Your task to perform on an android device: What's on my calendar tomorrow? Image 0: 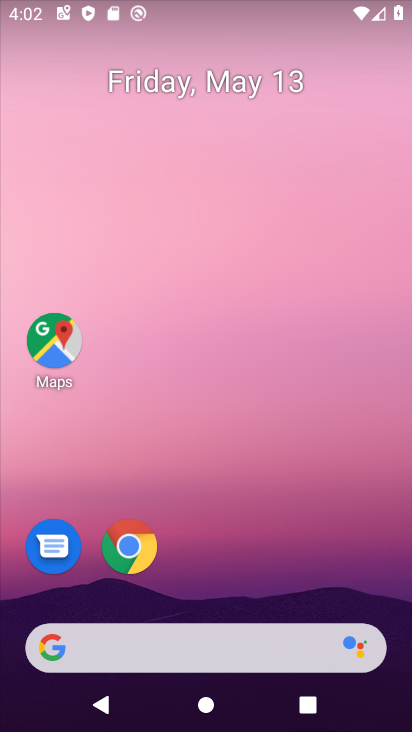
Step 0: drag from (247, 597) to (240, 5)
Your task to perform on an android device: What's on my calendar tomorrow? Image 1: 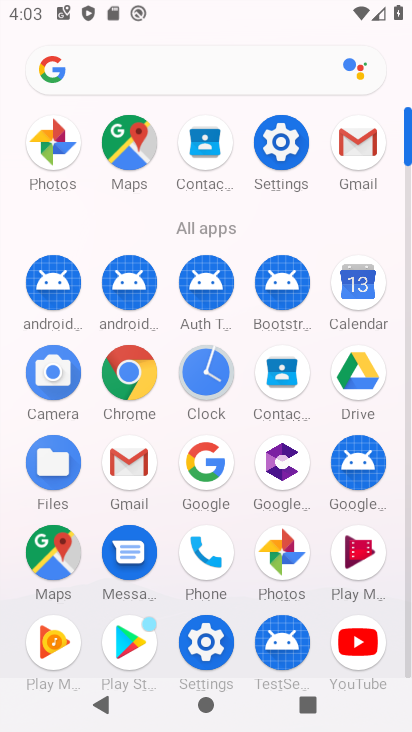
Step 1: click (363, 296)
Your task to perform on an android device: What's on my calendar tomorrow? Image 2: 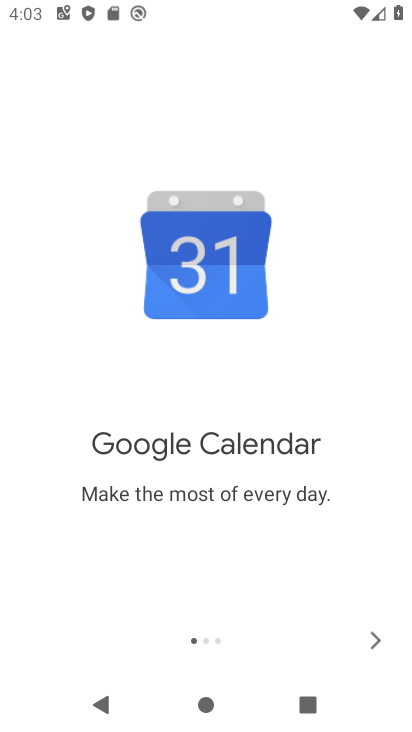
Step 2: click (370, 647)
Your task to perform on an android device: What's on my calendar tomorrow? Image 3: 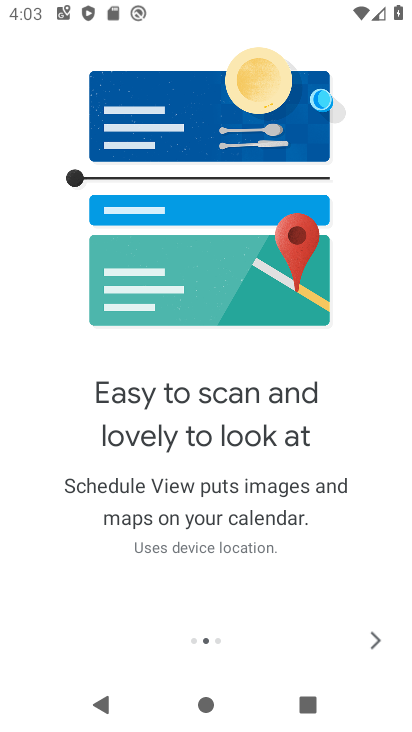
Step 3: click (364, 650)
Your task to perform on an android device: What's on my calendar tomorrow? Image 4: 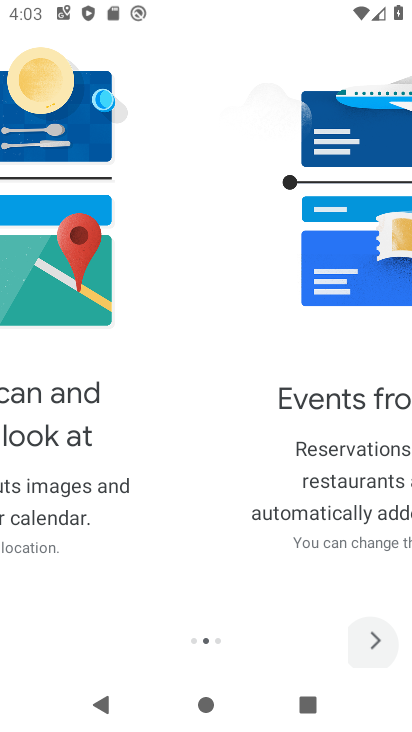
Step 4: click (371, 647)
Your task to perform on an android device: What's on my calendar tomorrow? Image 5: 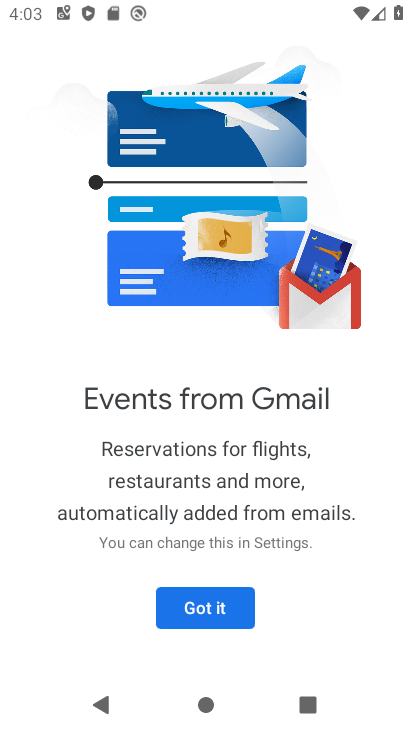
Step 5: click (220, 617)
Your task to perform on an android device: What's on my calendar tomorrow? Image 6: 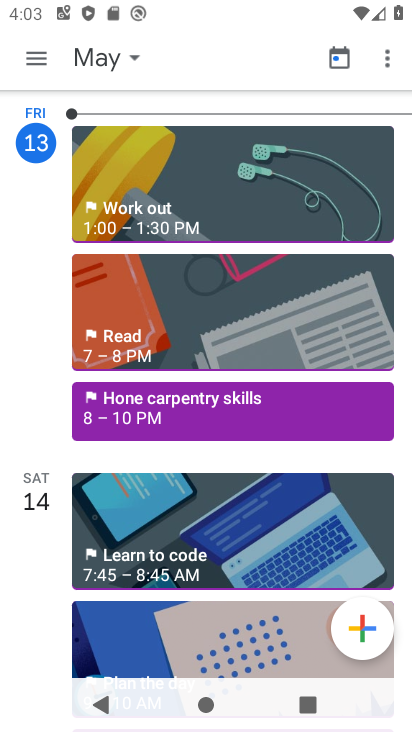
Step 6: click (33, 58)
Your task to perform on an android device: What's on my calendar tomorrow? Image 7: 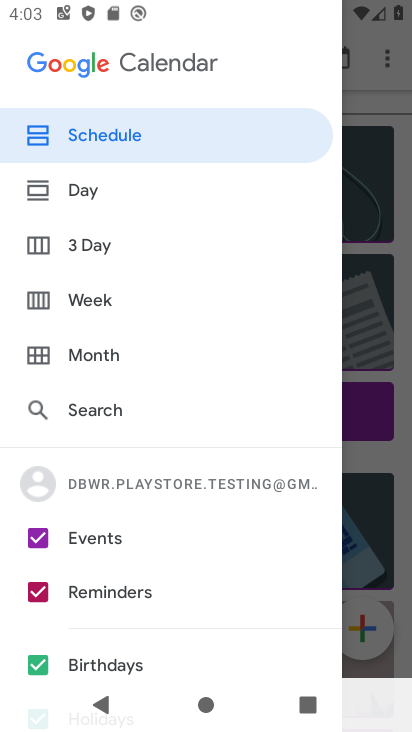
Step 7: click (31, 45)
Your task to perform on an android device: What's on my calendar tomorrow? Image 8: 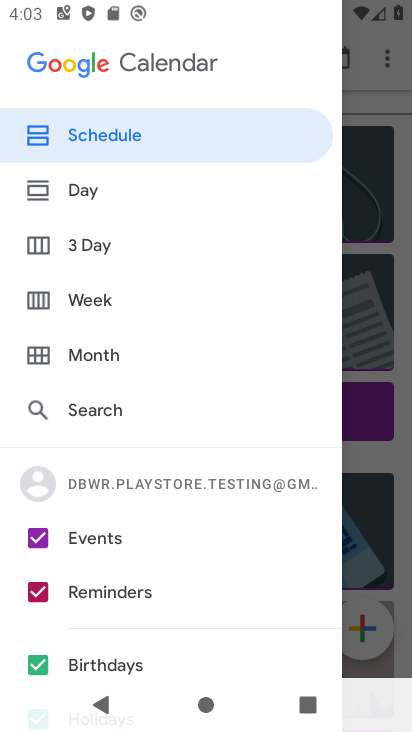
Step 8: click (99, 248)
Your task to perform on an android device: What's on my calendar tomorrow? Image 9: 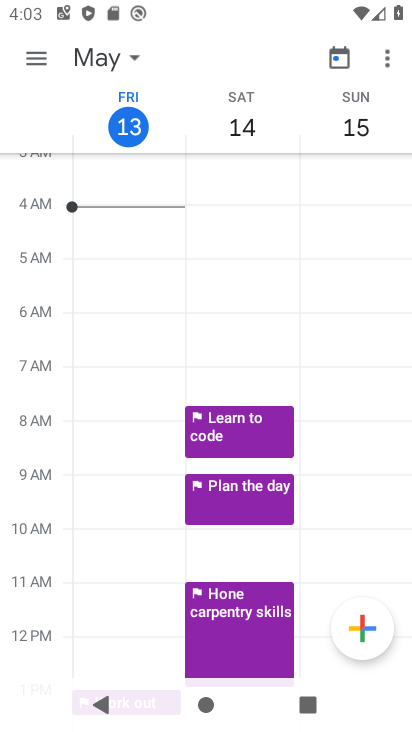
Step 9: task complete